Your task to perform on an android device: Is it going to rain this weekend? Image 0: 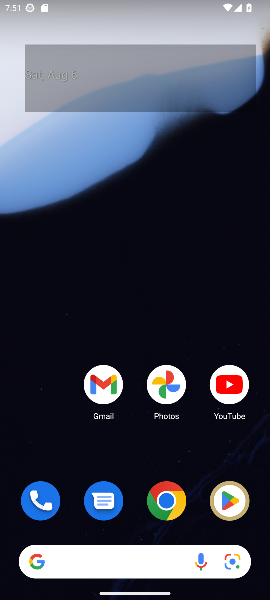
Step 0: click (78, 558)
Your task to perform on an android device: Is it going to rain this weekend? Image 1: 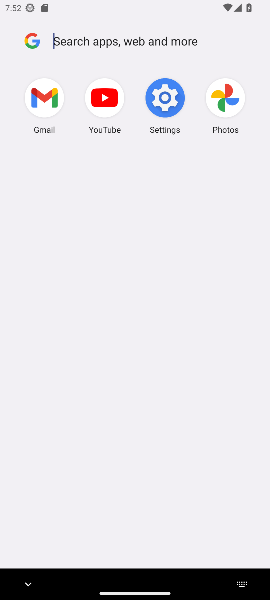
Step 1: type "Is it going to rain this weekend?"
Your task to perform on an android device: Is it going to rain this weekend? Image 2: 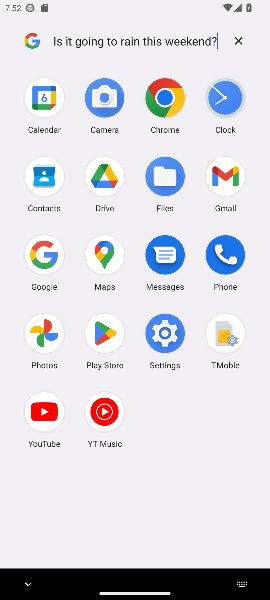
Step 2: type ""
Your task to perform on an android device: Is it going to rain this weekend? Image 3: 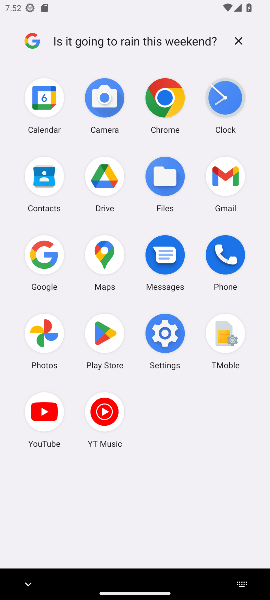
Step 3: type ""
Your task to perform on an android device: Is it going to rain this weekend? Image 4: 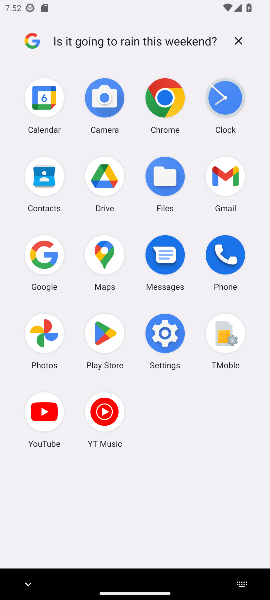
Step 4: type ""
Your task to perform on an android device: Is it going to rain this weekend? Image 5: 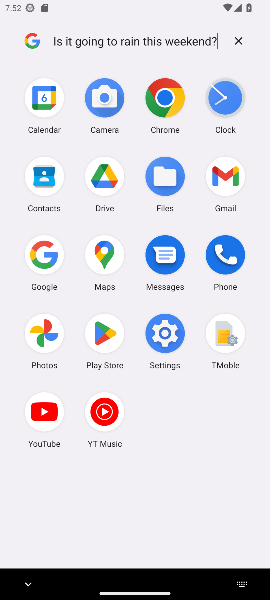
Step 5: task complete